Your task to perform on an android device: turn off translation in the chrome app Image 0: 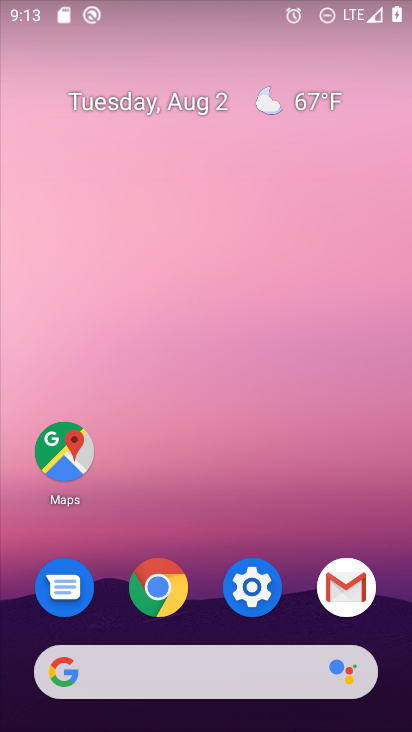
Step 0: press home button
Your task to perform on an android device: turn off translation in the chrome app Image 1: 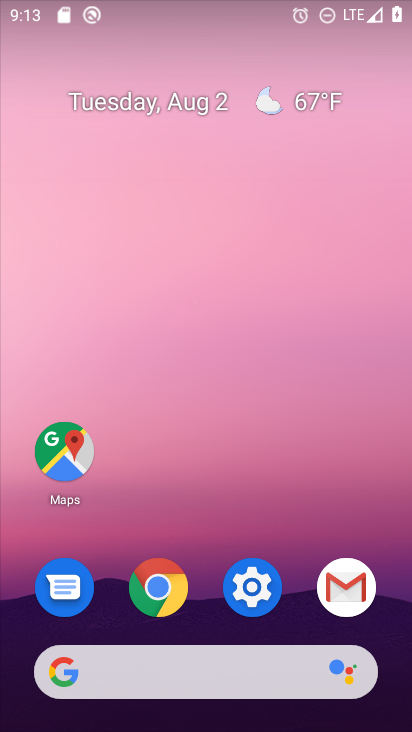
Step 1: click (167, 589)
Your task to perform on an android device: turn off translation in the chrome app Image 2: 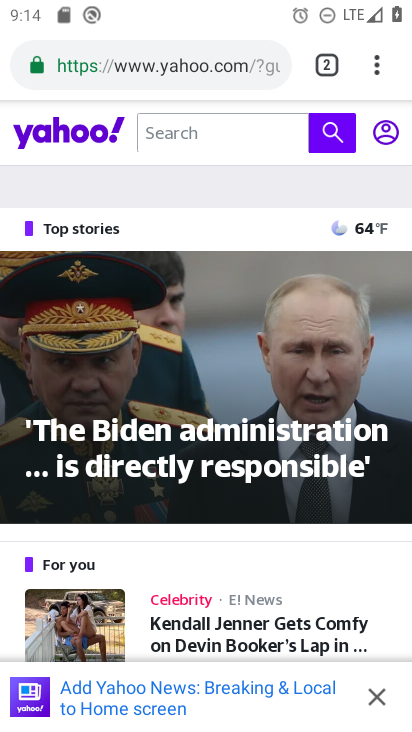
Step 2: click (383, 64)
Your task to perform on an android device: turn off translation in the chrome app Image 3: 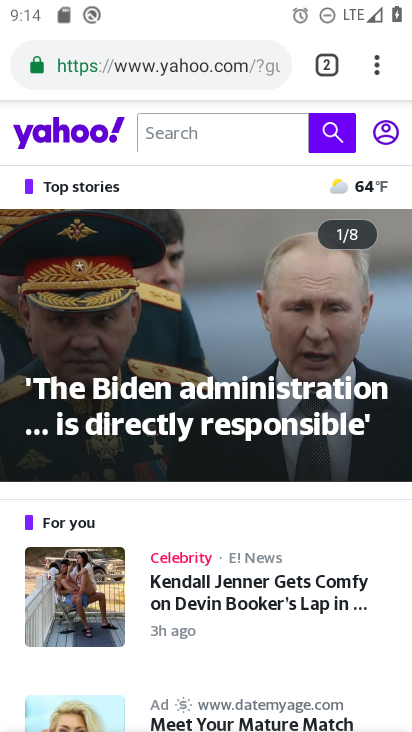
Step 3: click (382, 58)
Your task to perform on an android device: turn off translation in the chrome app Image 4: 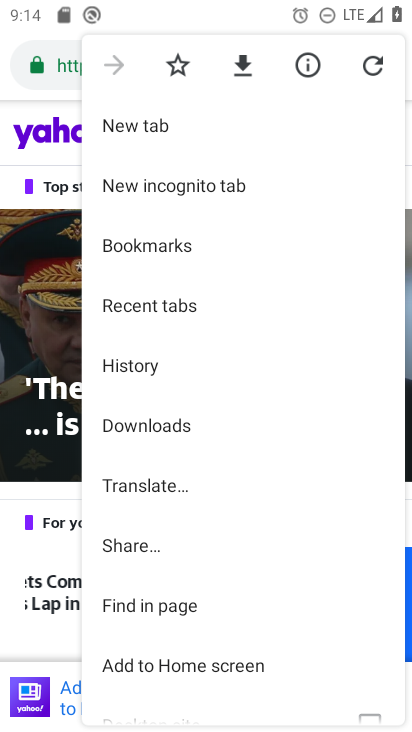
Step 4: drag from (203, 538) to (194, 405)
Your task to perform on an android device: turn off translation in the chrome app Image 5: 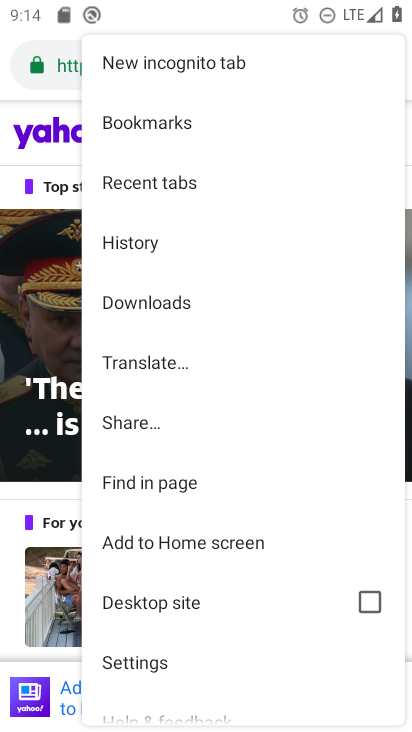
Step 5: click (171, 667)
Your task to perform on an android device: turn off translation in the chrome app Image 6: 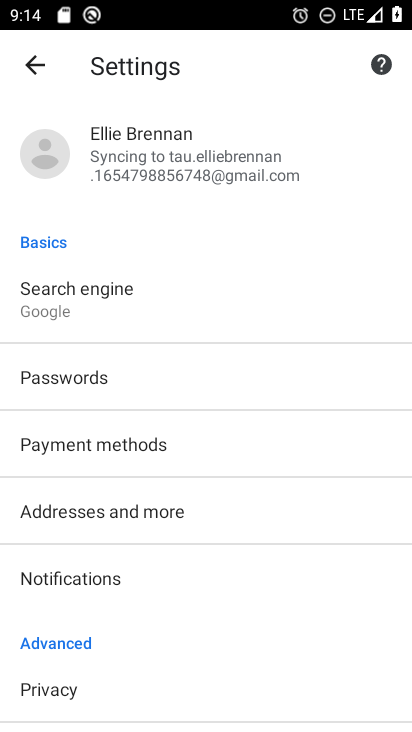
Step 6: drag from (105, 592) to (105, 398)
Your task to perform on an android device: turn off translation in the chrome app Image 7: 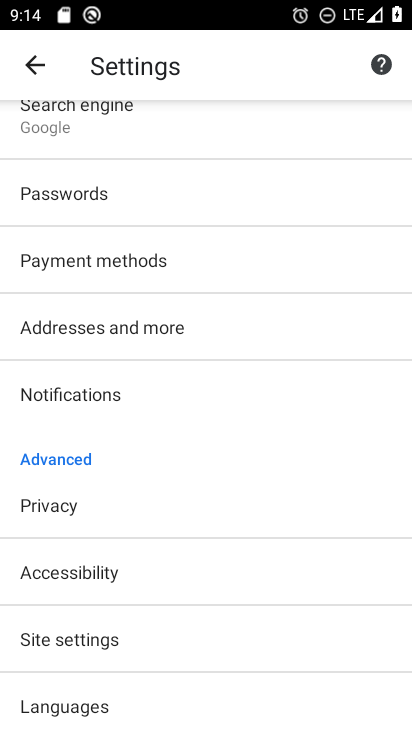
Step 7: click (126, 699)
Your task to perform on an android device: turn off translation in the chrome app Image 8: 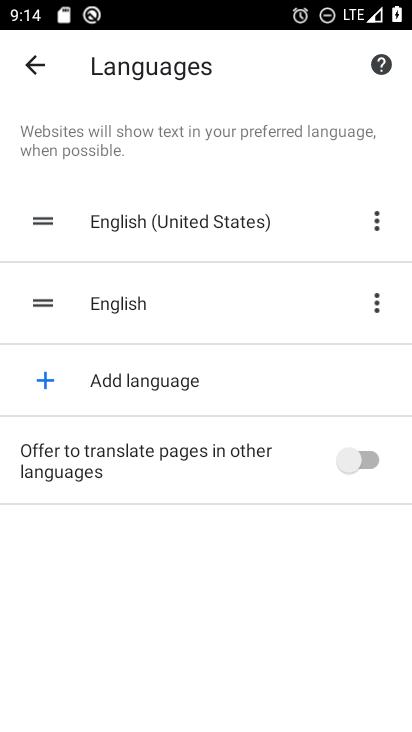
Step 8: click (338, 448)
Your task to perform on an android device: turn off translation in the chrome app Image 9: 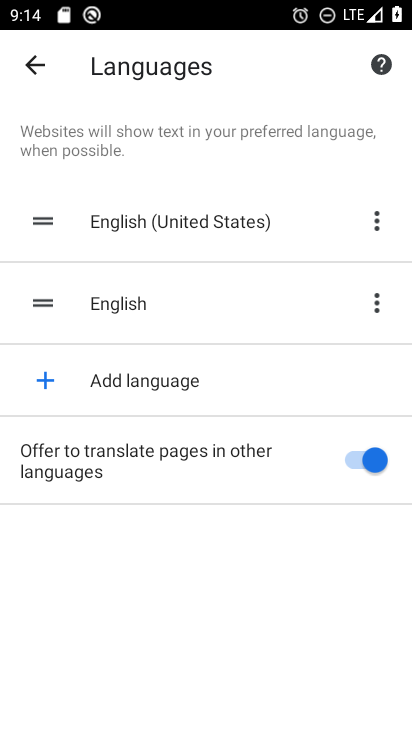
Step 9: click (338, 450)
Your task to perform on an android device: turn off translation in the chrome app Image 10: 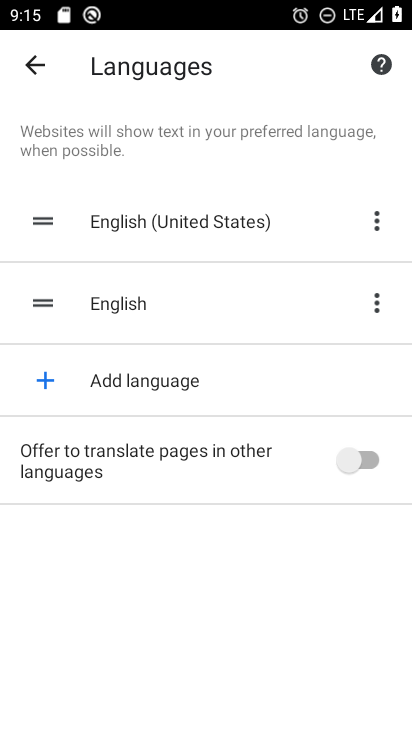
Step 10: task complete